Your task to perform on an android device: Go to Maps Image 0: 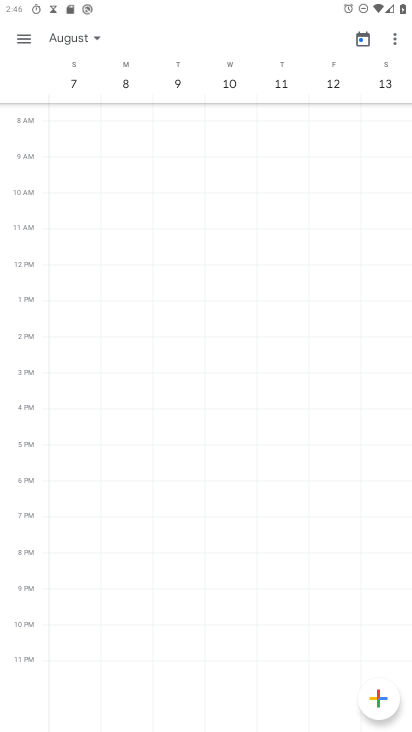
Step 0: press home button
Your task to perform on an android device: Go to Maps Image 1: 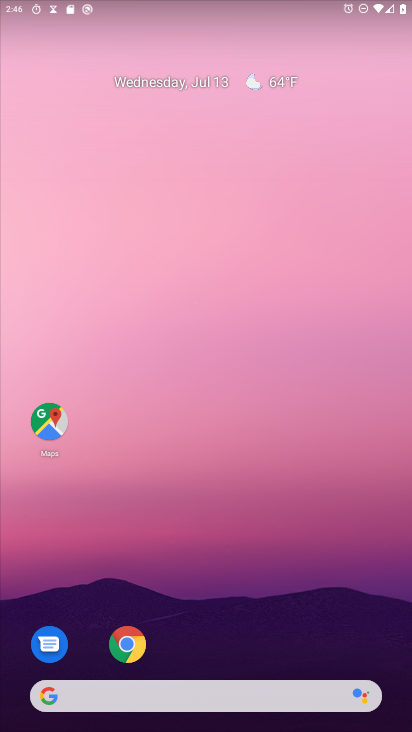
Step 1: click (45, 428)
Your task to perform on an android device: Go to Maps Image 2: 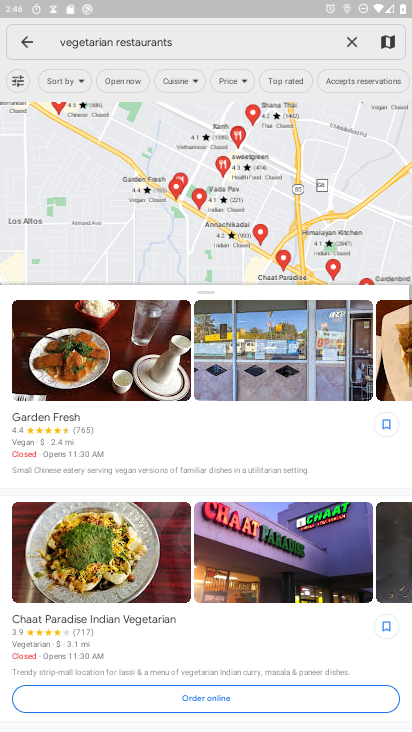
Step 2: click (24, 45)
Your task to perform on an android device: Go to Maps Image 3: 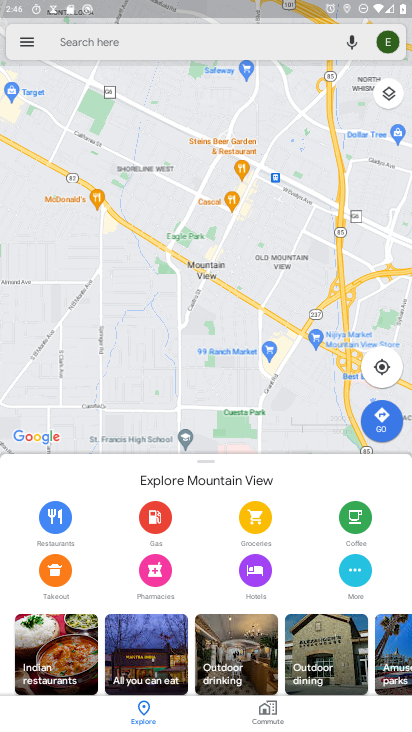
Step 3: task complete